Your task to perform on an android device: turn off improve location accuracy Image 0: 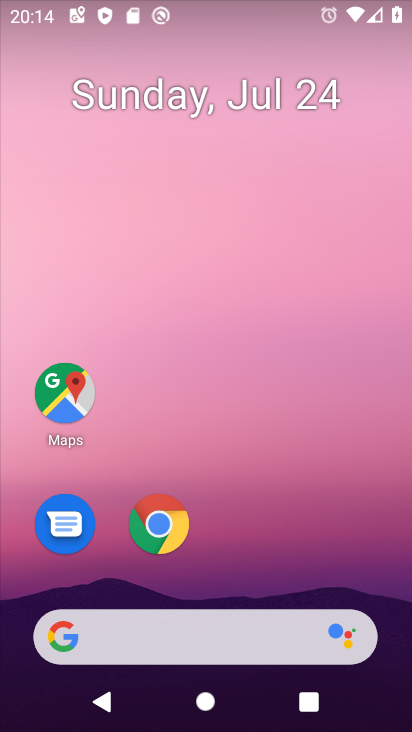
Step 0: drag from (253, 553) to (261, 0)
Your task to perform on an android device: turn off improve location accuracy Image 1: 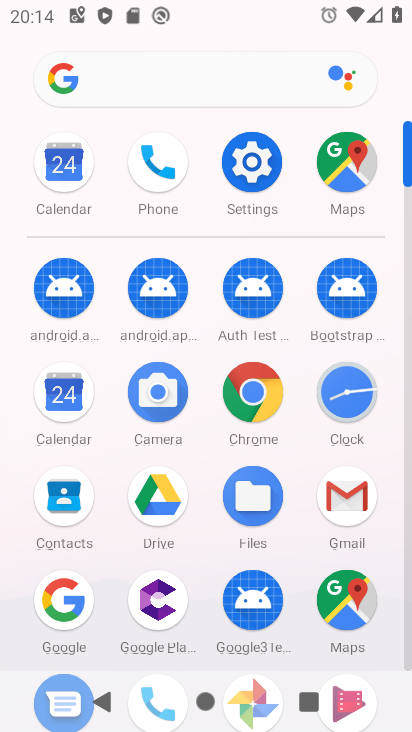
Step 1: click (248, 163)
Your task to perform on an android device: turn off improve location accuracy Image 2: 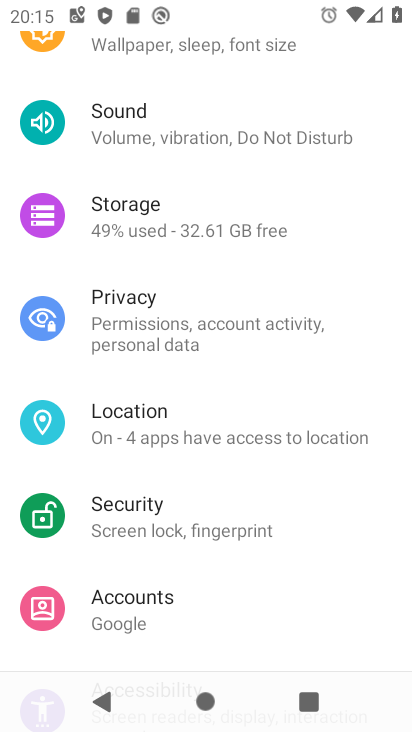
Step 2: click (248, 561)
Your task to perform on an android device: turn off improve location accuracy Image 3: 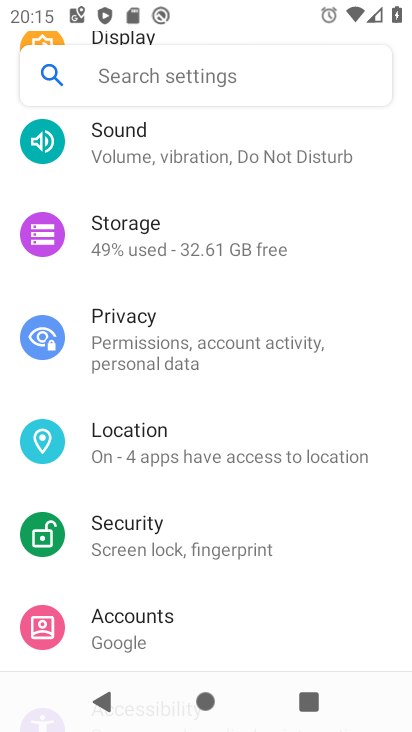
Step 3: click (240, 451)
Your task to perform on an android device: turn off improve location accuracy Image 4: 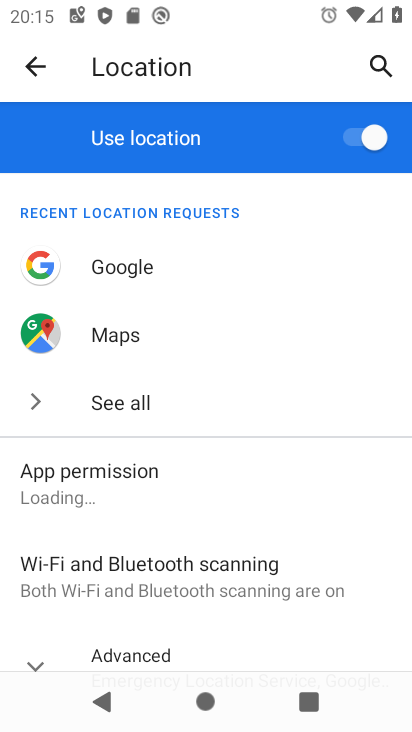
Step 4: drag from (216, 552) to (232, 136)
Your task to perform on an android device: turn off improve location accuracy Image 5: 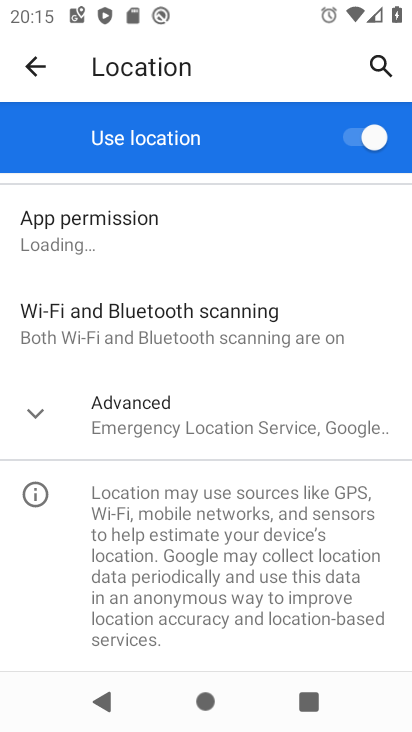
Step 5: click (37, 409)
Your task to perform on an android device: turn off improve location accuracy Image 6: 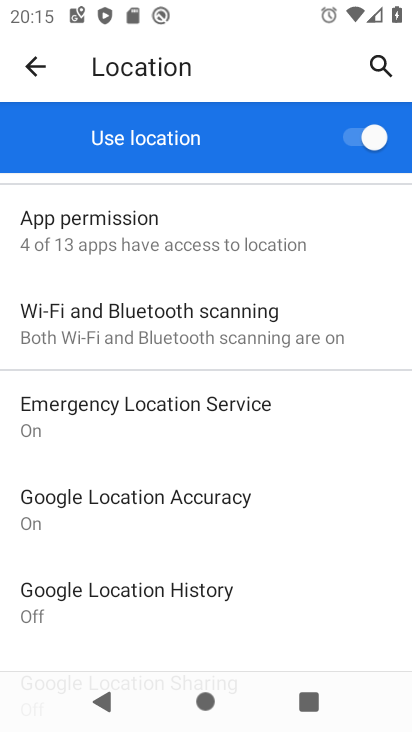
Step 6: click (146, 508)
Your task to perform on an android device: turn off improve location accuracy Image 7: 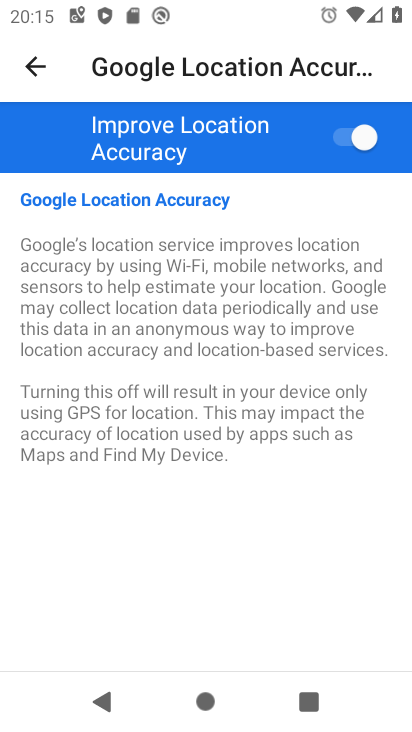
Step 7: click (350, 141)
Your task to perform on an android device: turn off improve location accuracy Image 8: 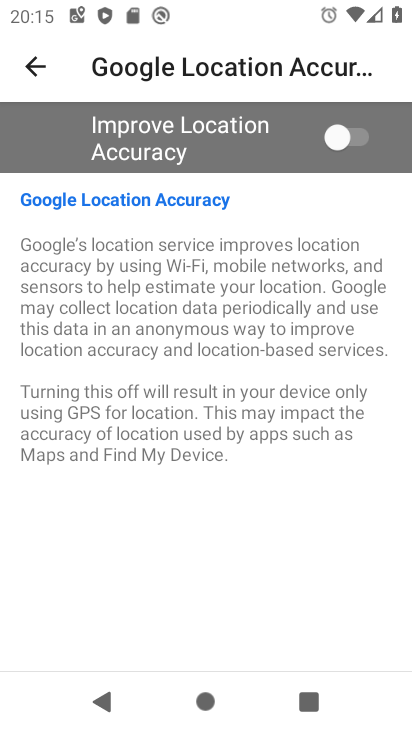
Step 8: task complete